Your task to perform on an android device: turn off data saver in the chrome app Image 0: 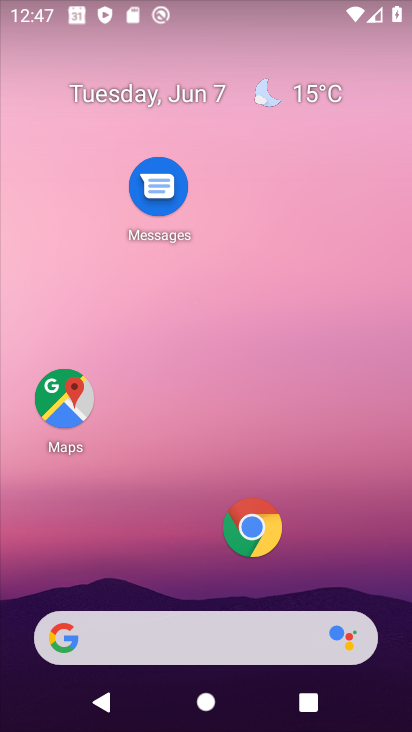
Step 0: drag from (180, 617) to (175, 279)
Your task to perform on an android device: turn off data saver in the chrome app Image 1: 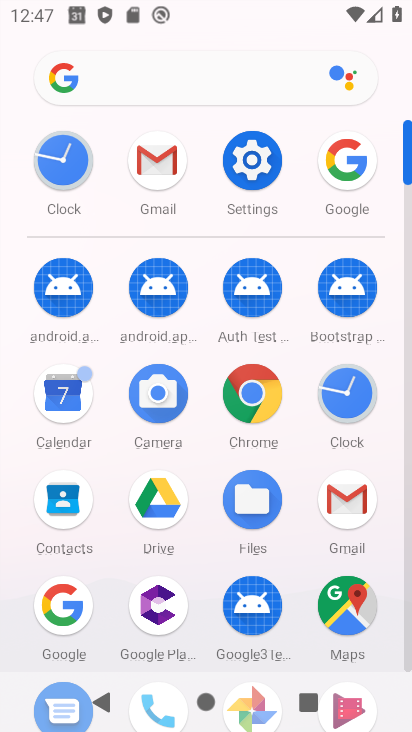
Step 1: click (254, 403)
Your task to perform on an android device: turn off data saver in the chrome app Image 2: 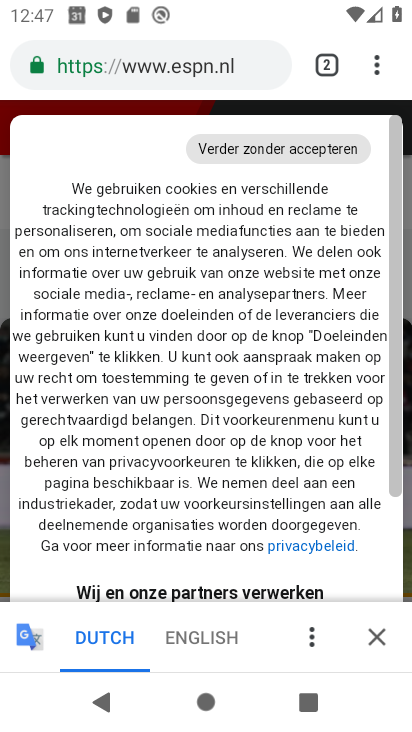
Step 2: click (377, 71)
Your task to perform on an android device: turn off data saver in the chrome app Image 3: 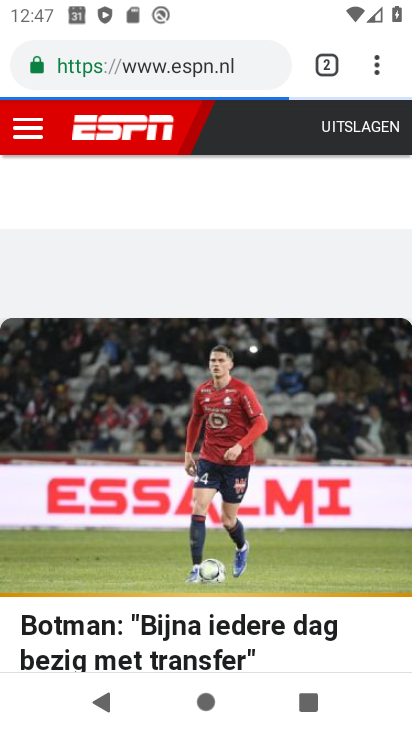
Step 3: click (374, 69)
Your task to perform on an android device: turn off data saver in the chrome app Image 4: 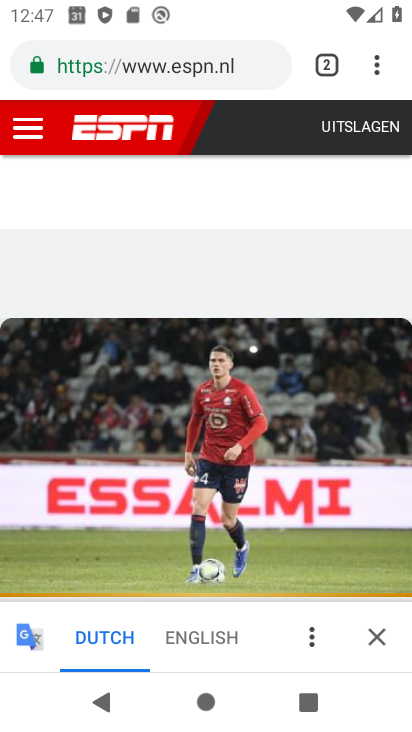
Step 4: click (368, 51)
Your task to perform on an android device: turn off data saver in the chrome app Image 5: 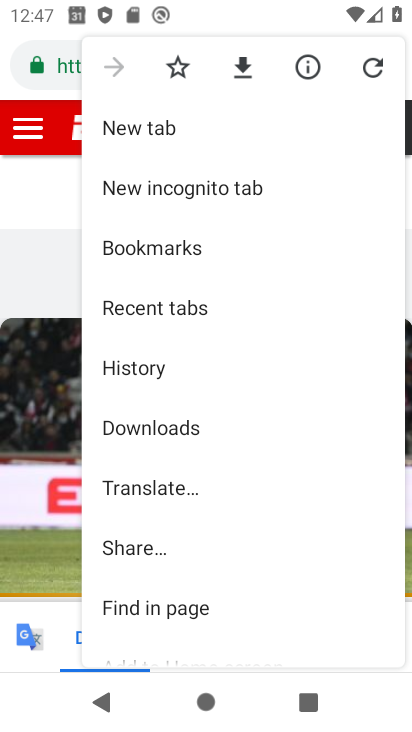
Step 5: drag from (161, 611) to (207, 220)
Your task to perform on an android device: turn off data saver in the chrome app Image 6: 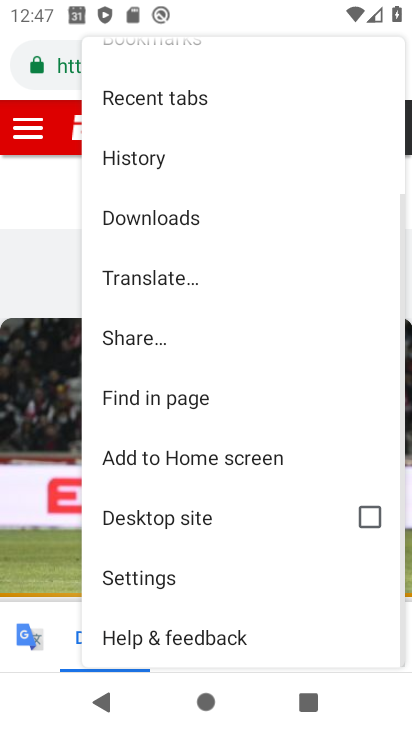
Step 6: click (158, 577)
Your task to perform on an android device: turn off data saver in the chrome app Image 7: 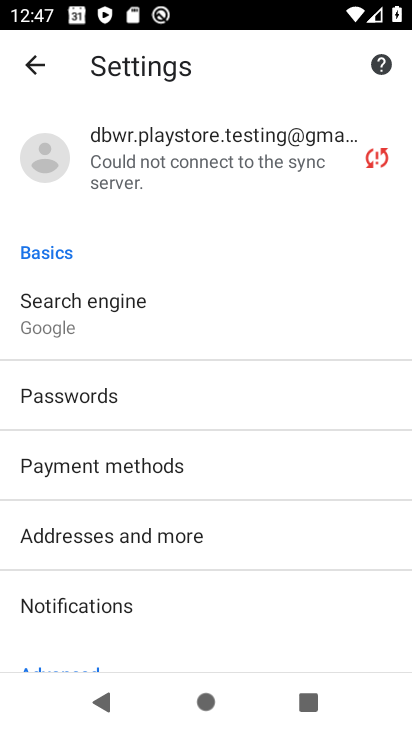
Step 7: drag from (210, 640) to (208, 314)
Your task to perform on an android device: turn off data saver in the chrome app Image 8: 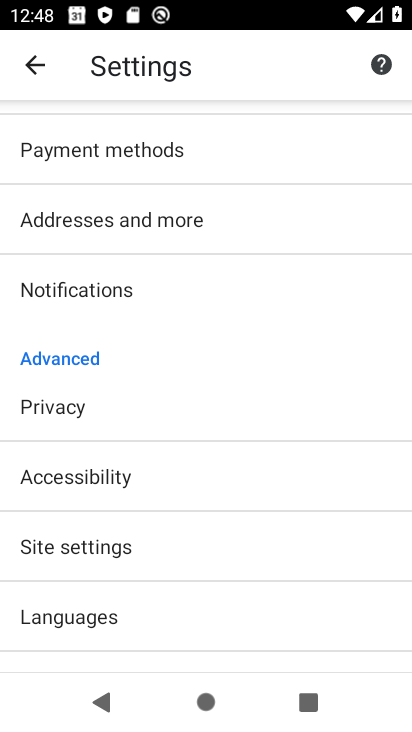
Step 8: drag from (107, 626) to (123, 349)
Your task to perform on an android device: turn off data saver in the chrome app Image 9: 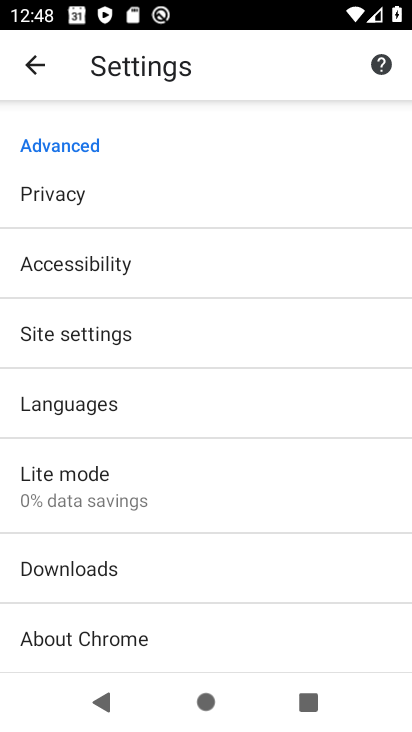
Step 9: click (68, 484)
Your task to perform on an android device: turn off data saver in the chrome app Image 10: 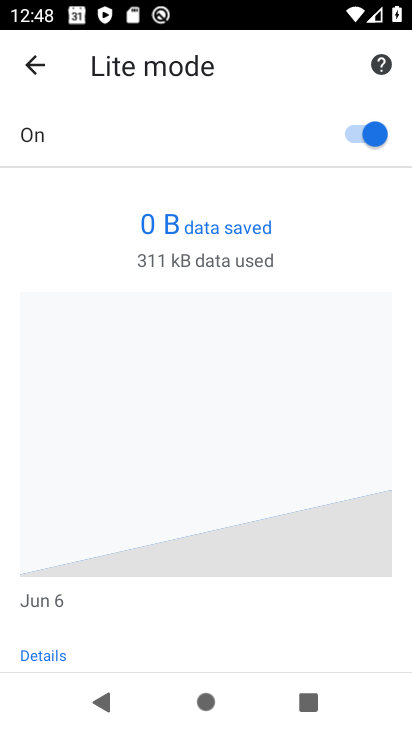
Step 10: click (359, 134)
Your task to perform on an android device: turn off data saver in the chrome app Image 11: 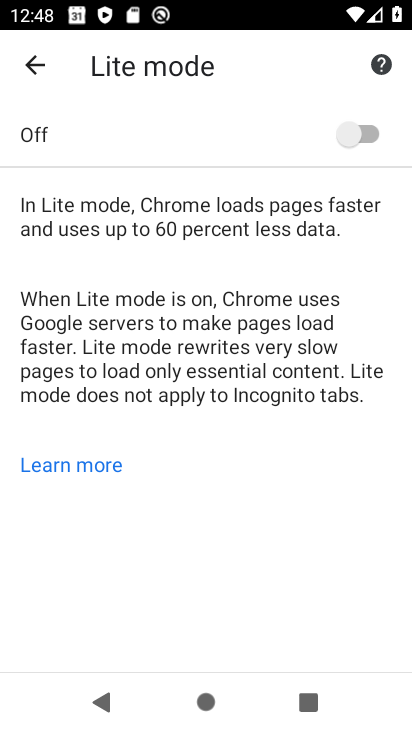
Step 11: task complete